Your task to perform on an android device: Go to accessibility settings Image 0: 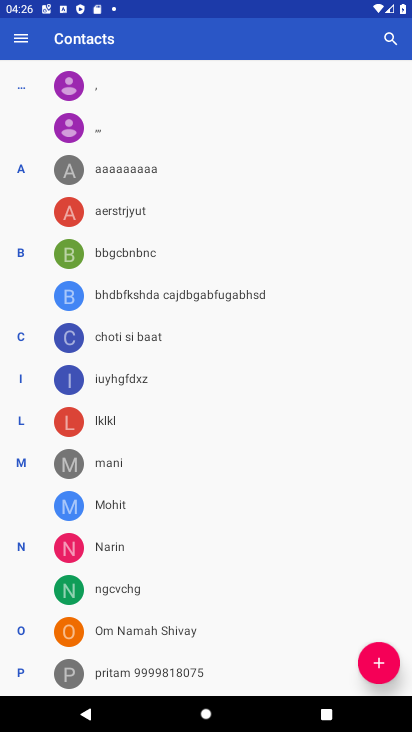
Step 0: press home button
Your task to perform on an android device: Go to accessibility settings Image 1: 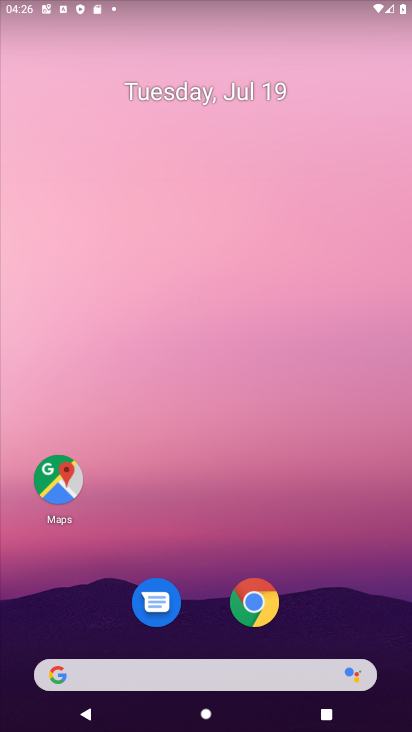
Step 1: drag from (212, 466) to (325, 0)
Your task to perform on an android device: Go to accessibility settings Image 2: 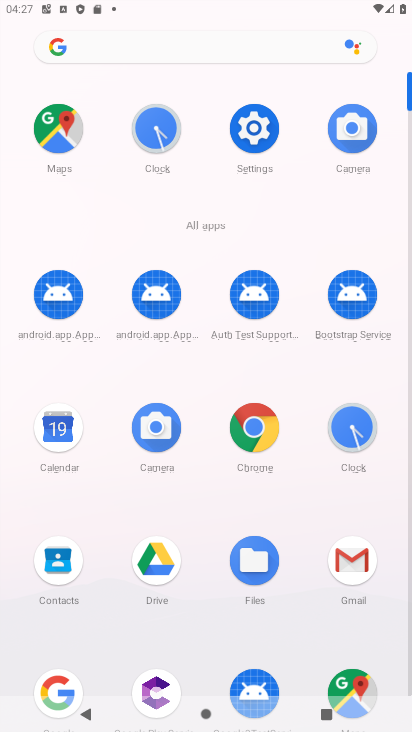
Step 2: click (238, 147)
Your task to perform on an android device: Go to accessibility settings Image 3: 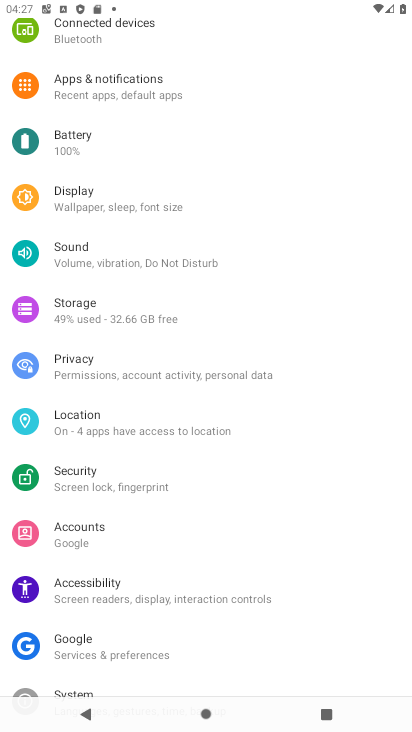
Step 3: drag from (226, 133) to (89, 537)
Your task to perform on an android device: Go to accessibility settings Image 4: 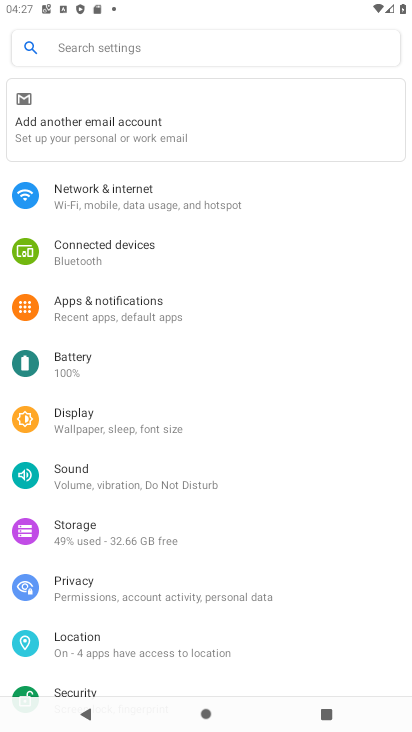
Step 4: drag from (89, 537) to (150, 89)
Your task to perform on an android device: Go to accessibility settings Image 5: 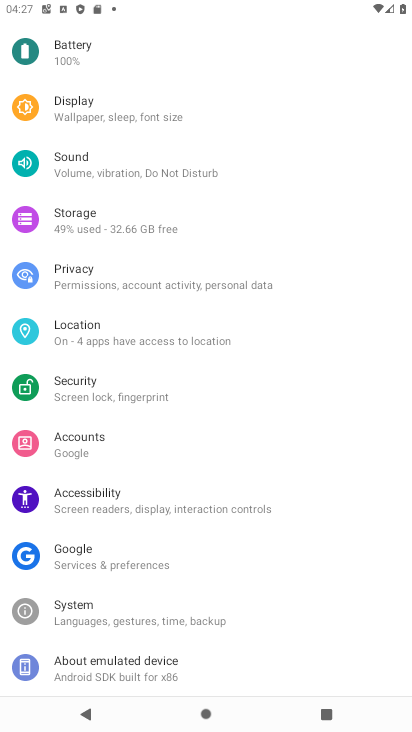
Step 5: click (119, 523)
Your task to perform on an android device: Go to accessibility settings Image 6: 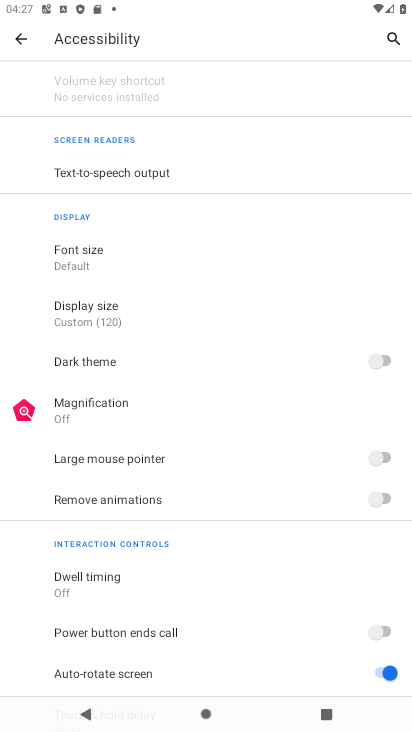
Step 6: task complete